Your task to perform on an android device: Toggle the flashlight Image 0: 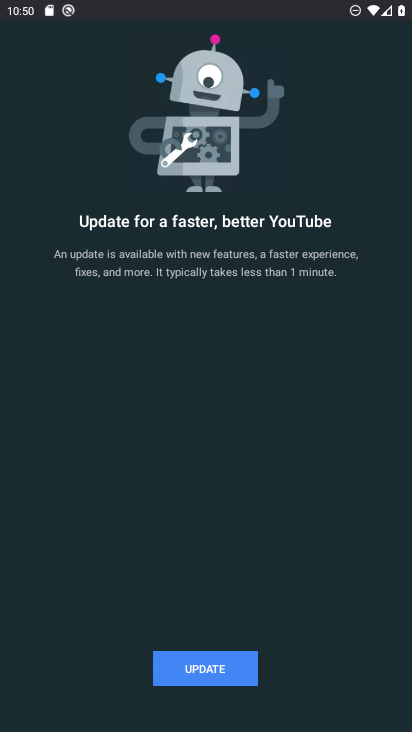
Step 0: press home button
Your task to perform on an android device: Toggle the flashlight Image 1: 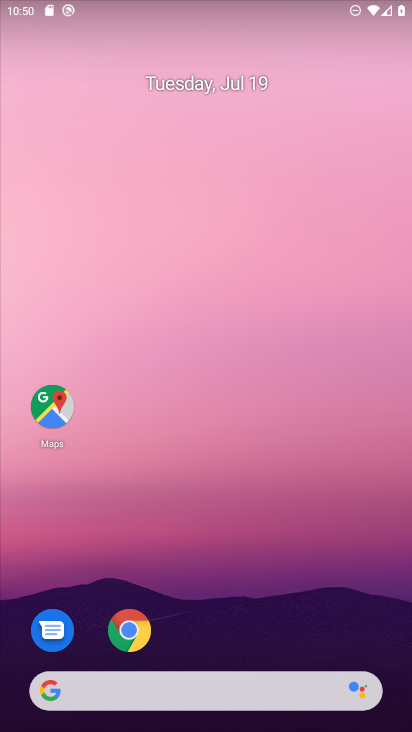
Step 1: drag from (211, 606) to (135, 77)
Your task to perform on an android device: Toggle the flashlight Image 2: 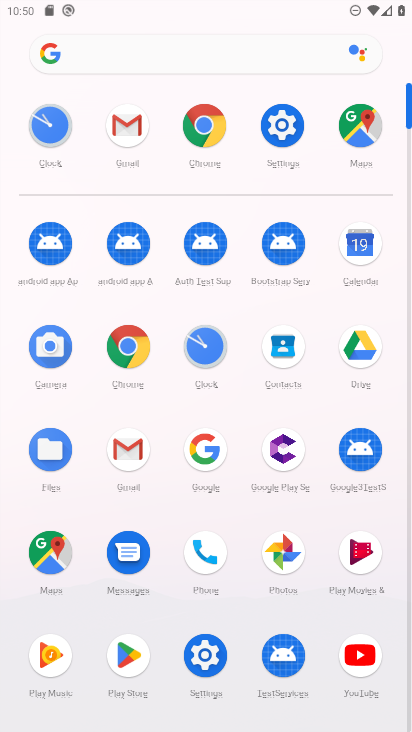
Step 2: click (282, 115)
Your task to perform on an android device: Toggle the flashlight Image 3: 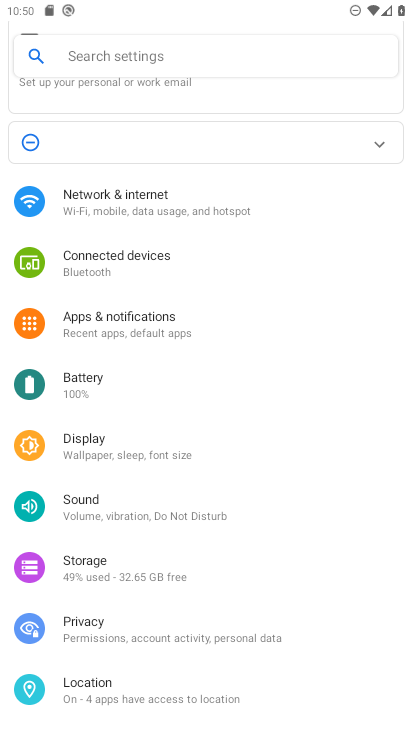
Step 3: task complete